Your task to perform on an android device: turn pop-ups off in chrome Image 0: 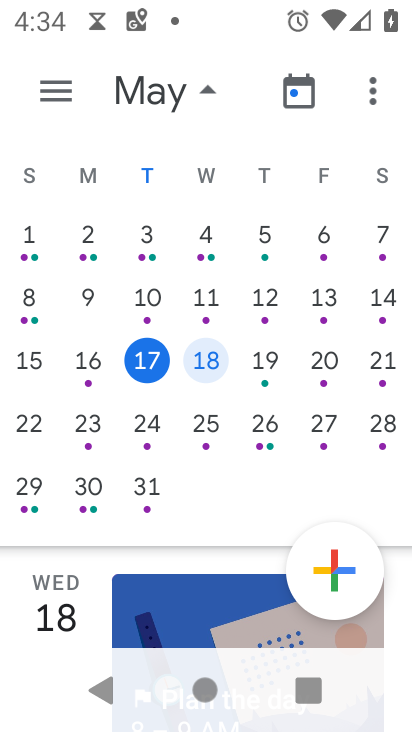
Step 0: press home button
Your task to perform on an android device: turn pop-ups off in chrome Image 1: 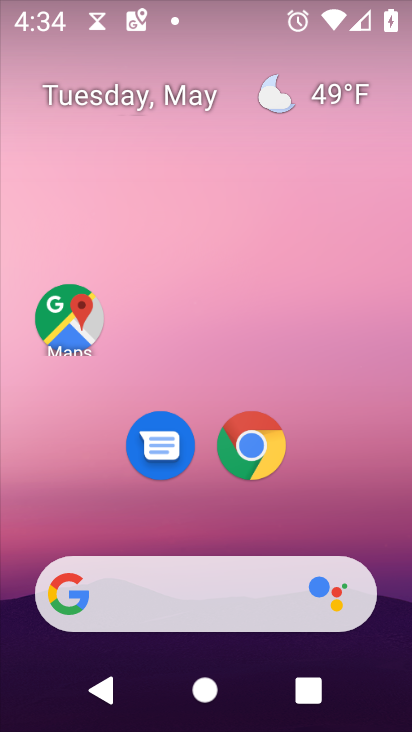
Step 1: drag from (316, 573) to (366, 0)
Your task to perform on an android device: turn pop-ups off in chrome Image 2: 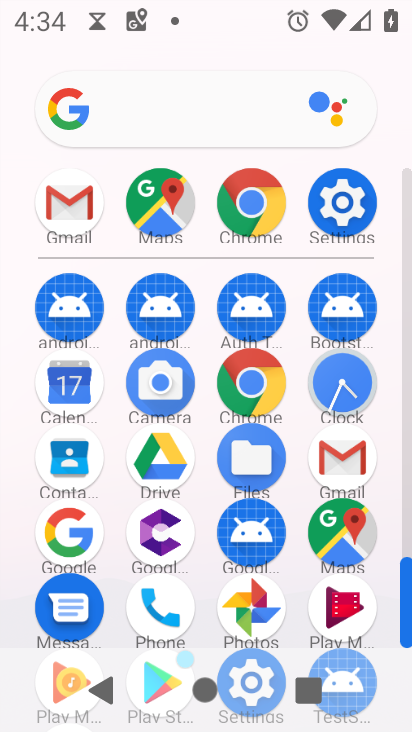
Step 2: click (259, 385)
Your task to perform on an android device: turn pop-ups off in chrome Image 3: 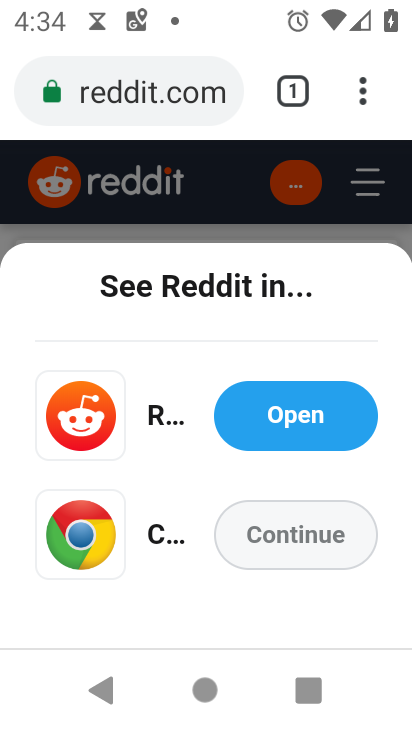
Step 3: click (378, 79)
Your task to perform on an android device: turn pop-ups off in chrome Image 4: 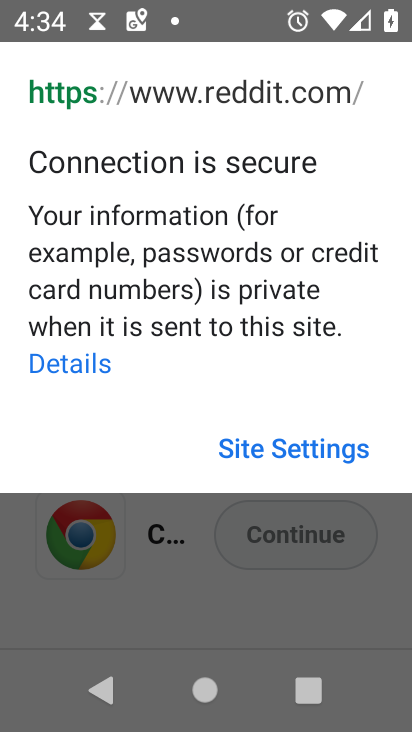
Step 4: click (253, 444)
Your task to perform on an android device: turn pop-ups off in chrome Image 5: 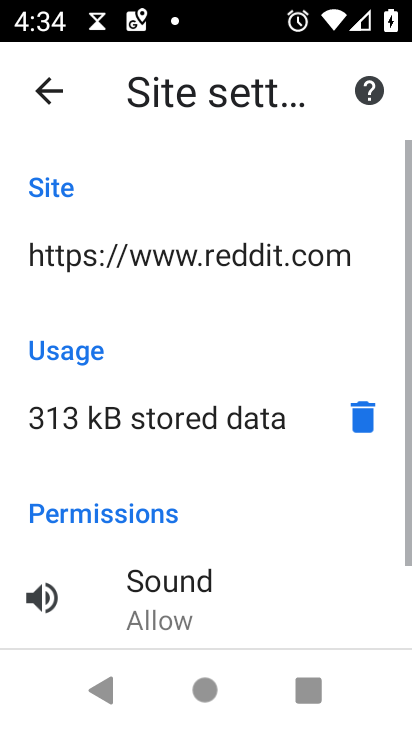
Step 5: drag from (258, 622) to (190, 114)
Your task to perform on an android device: turn pop-ups off in chrome Image 6: 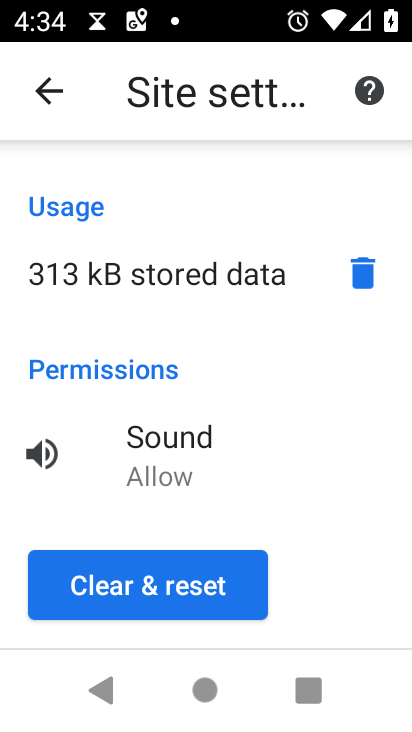
Step 6: press back button
Your task to perform on an android device: turn pop-ups off in chrome Image 7: 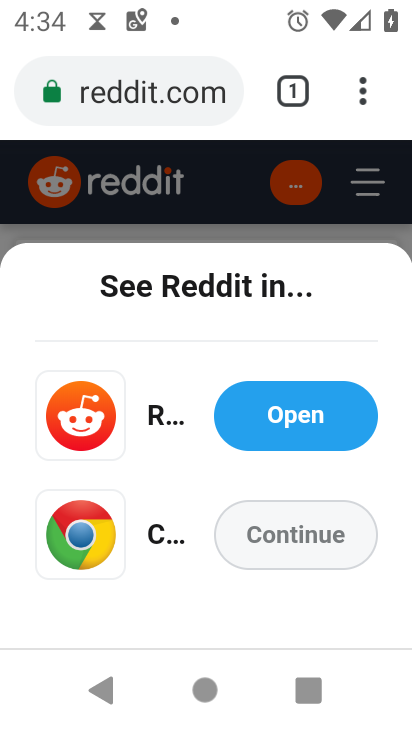
Step 7: drag from (359, 89) to (186, 467)
Your task to perform on an android device: turn pop-ups off in chrome Image 8: 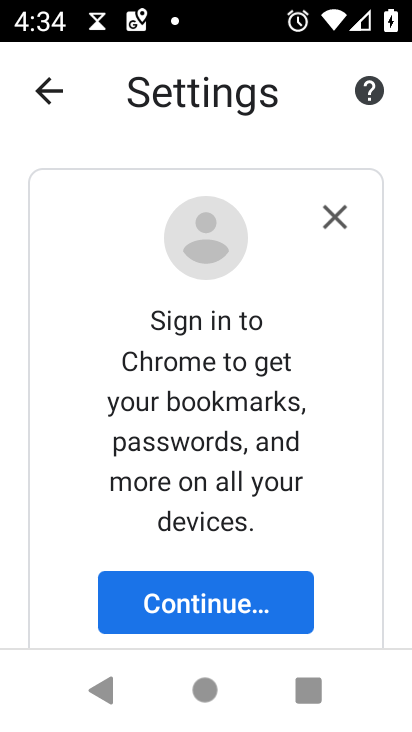
Step 8: drag from (312, 569) to (285, 92)
Your task to perform on an android device: turn pop-ups off in chrome Image 9: 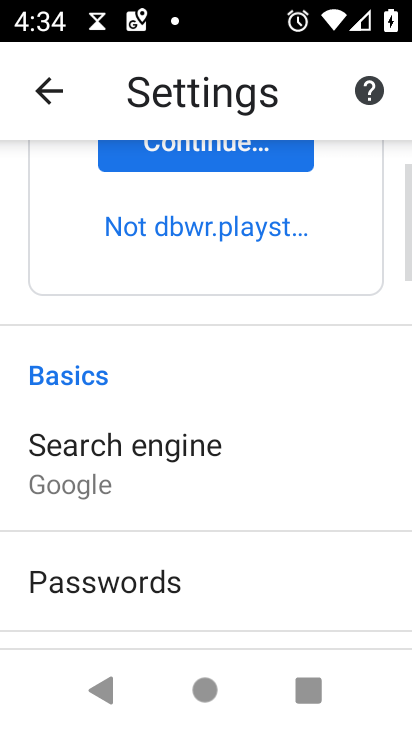
Step 9: drag from (302, 542) to (247, 222)
Your task to perform on an android device: turn pop-ups off in chrome Image 10: 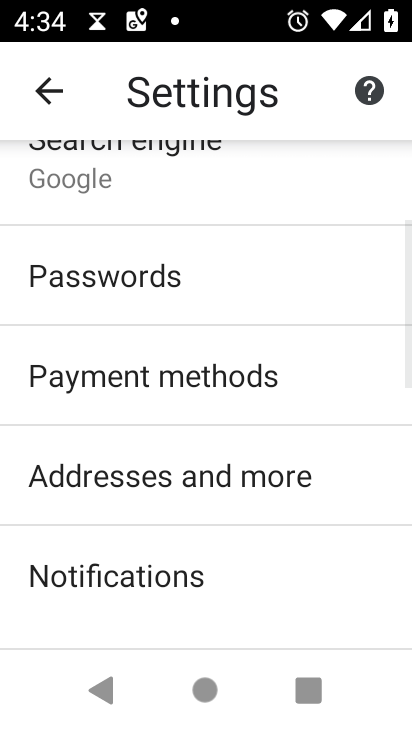
Step 10: drag from (292, 599) to (309, 261)
Your task to perform on an android device: turn pop-ups off in chrome Image 11: 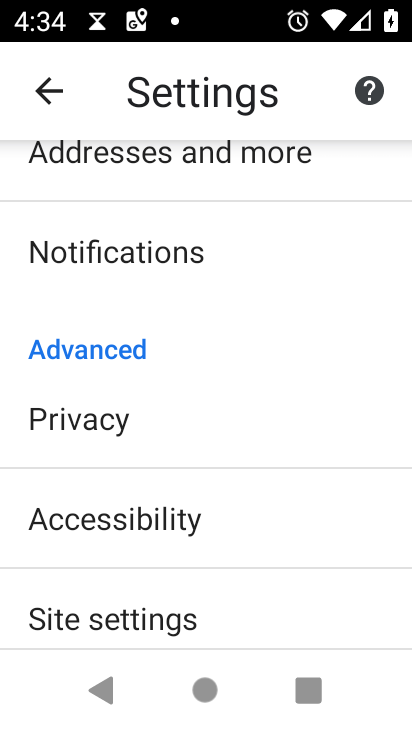
Step 11: click (223, 617)
Your task to perform on an android device: turn pop-ups off in chrome Image 12: 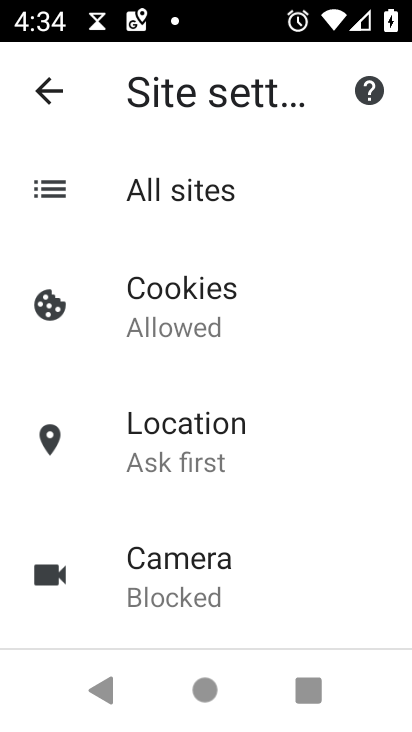
Step 12: drag from (235, 615) to (296, 258)
Your task to perform on an android device: turn pop-ups off in chrome Image 13: 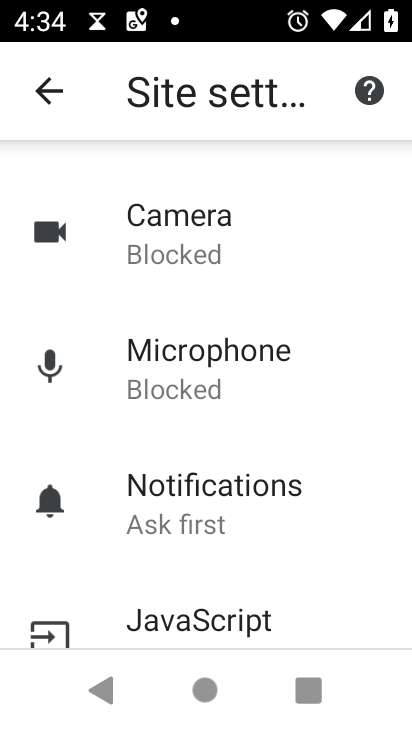
Step 13: drag from (267, 597) to (259, 124)
Your task to perform on an android device: turn pop-ups off in chrome Image 14: 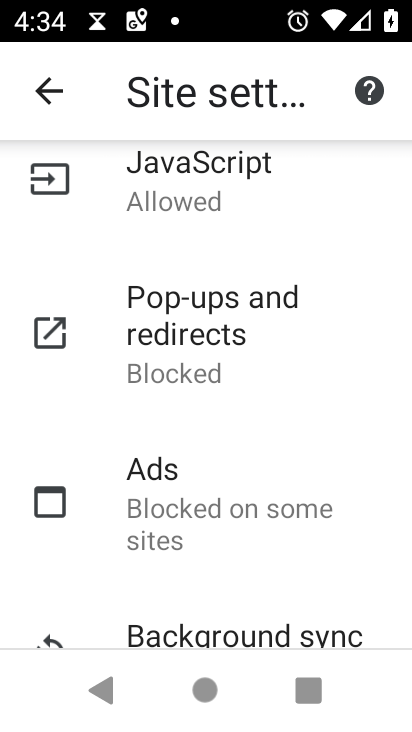
Step 14: click (248, 326)
Your task to perform on an android device: turn pop-ups off in chrome Image 15: 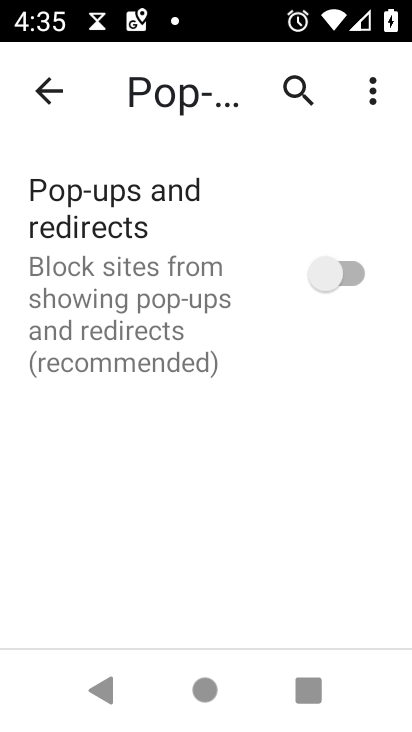
Step 15: task complete